Your task to perform on an android device: find which apps use the phone's location Image 0: 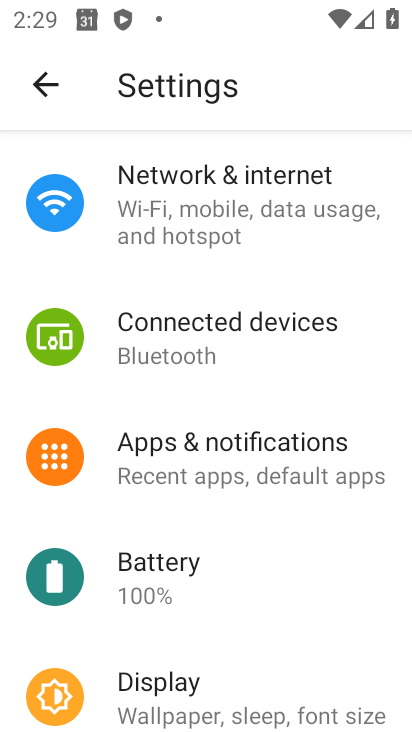
Step 0: press home button
Your task to perform on an android device: find which apps use the phone's location Image 1: 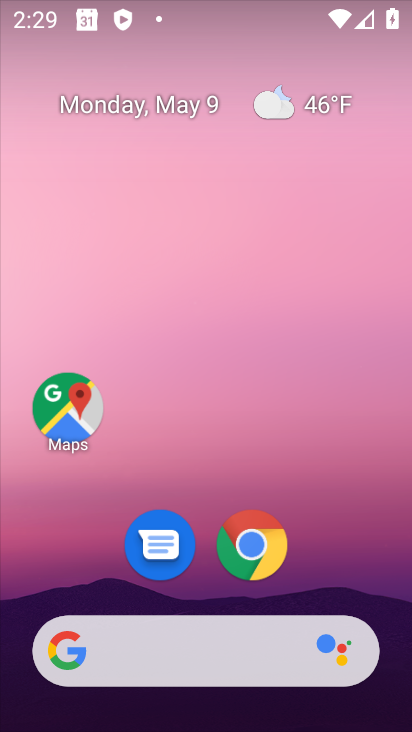
Step 1: drag from (194, 595) to (206, 340)
Your task to perform on an android device: find which apps use the phone's location Image 2: 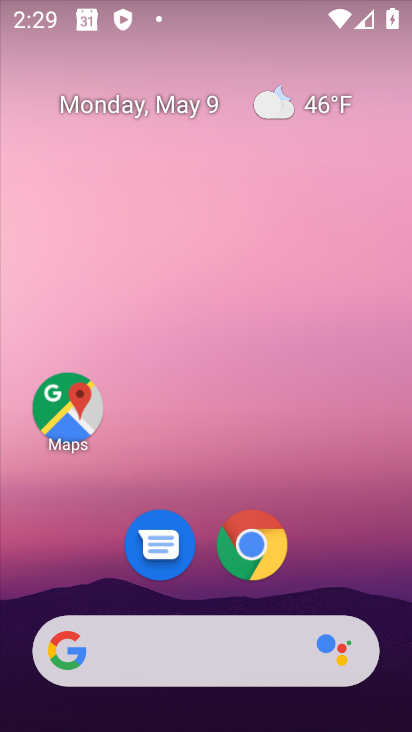
Step 2: drag from (204, 596) to (256, 228)
Your task to perform on an android device: find which apps use the phone's location Image 3: 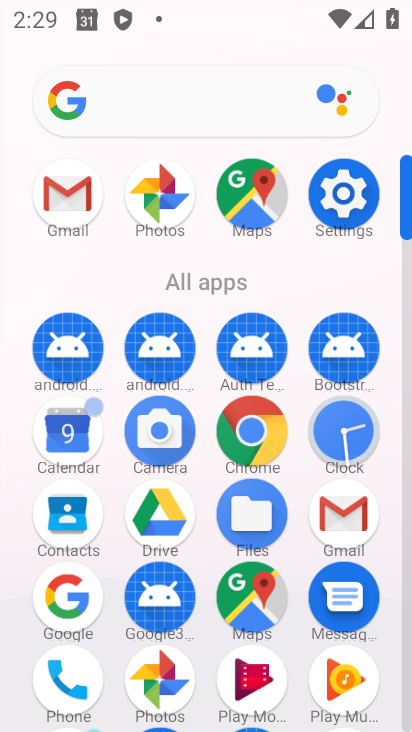
Step 3: click (325, 227)
Your task to perform on an android device: find which apps use the phone's location Image 4: 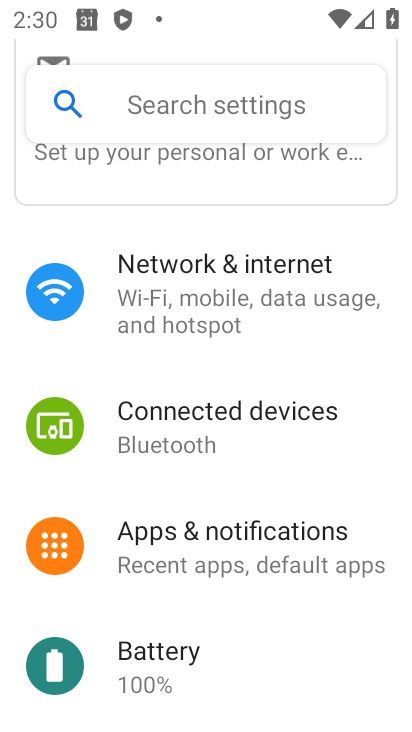
Step 4: drag from (204, 654) to (204, 541)
Your task to perform on an android device: find which apps use the phone's location Image 5: 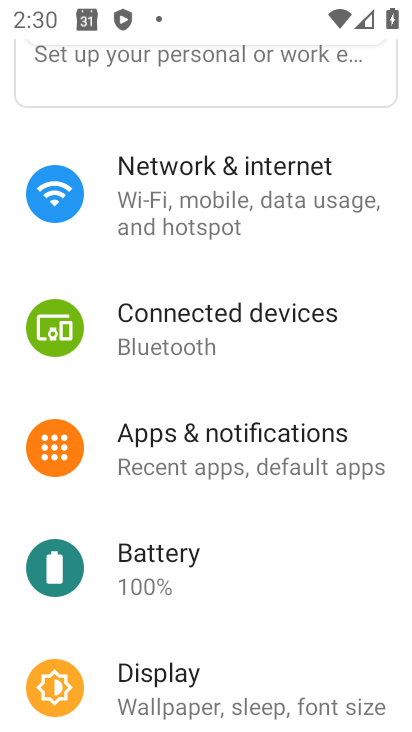
Step 5: drag from (233, 647) to (271, 305)
Your task to perform on an android device: find which apps use the phone's location Image 6: 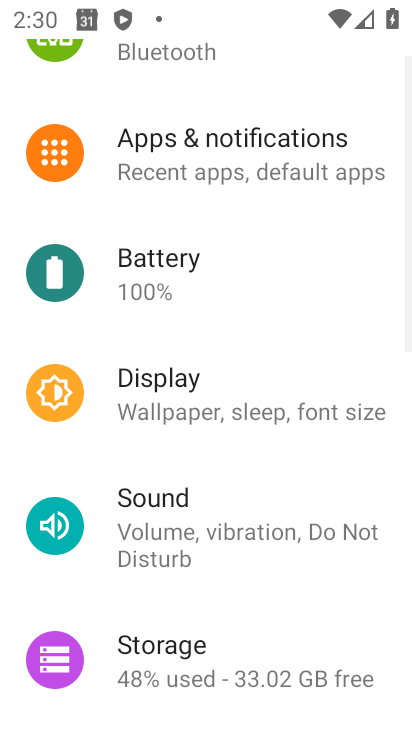
Step 6: drag from (250, 618) to (315, 339)
Your task to perform on an android device: find which apps use the phone's location Image 7: 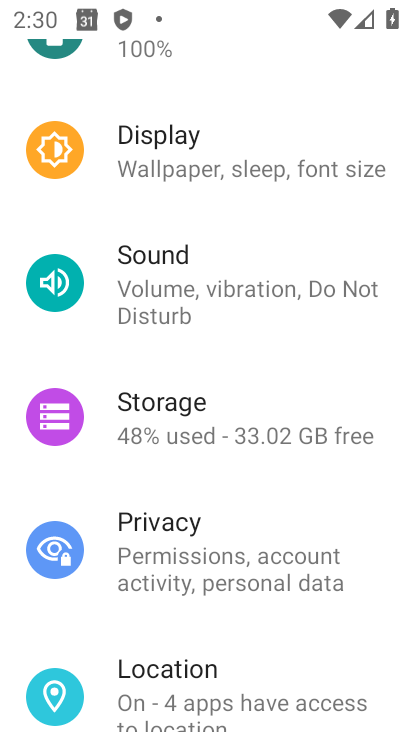
Step 7: click (206, 663)
Your task to perform on an android device: find which apps use the phone's location Image 8: 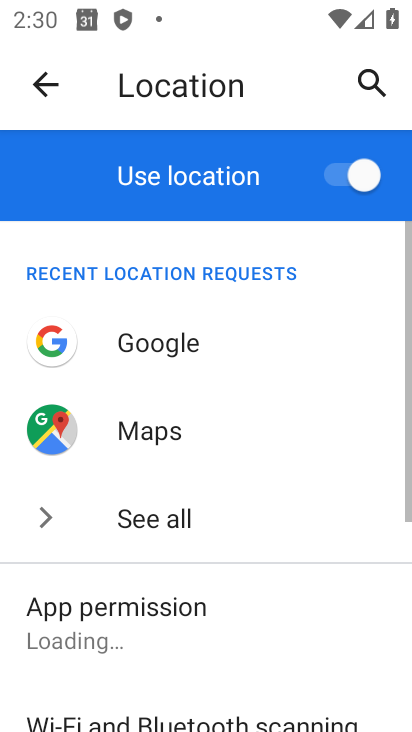
Step 8: drag from (208, 660) to (272, 370)
Your task to perform on an android device: find which apps use the phone's location Image 9: 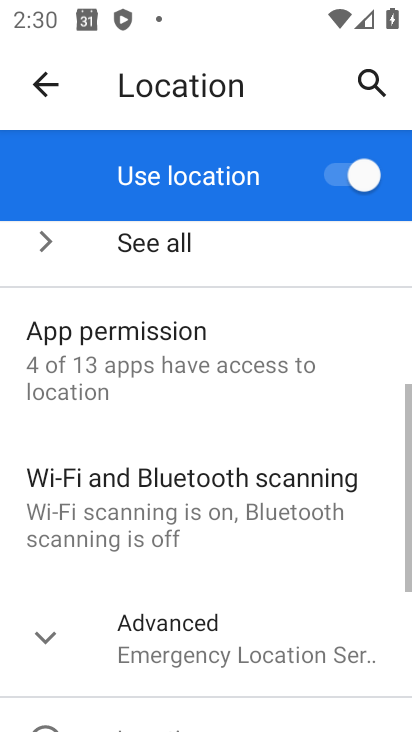
Step 9: click (173, 382)
Your task to perform on an android device: find which apps use the phone's location Image 10: 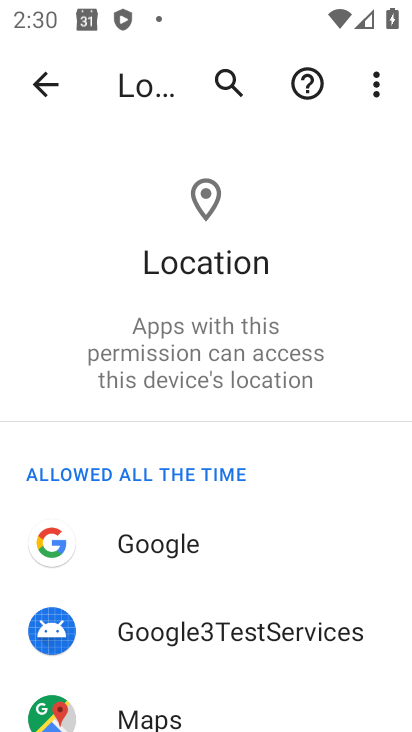
Step 10: task complete